Your task to perform on an android device: Open Amazon Image 0: 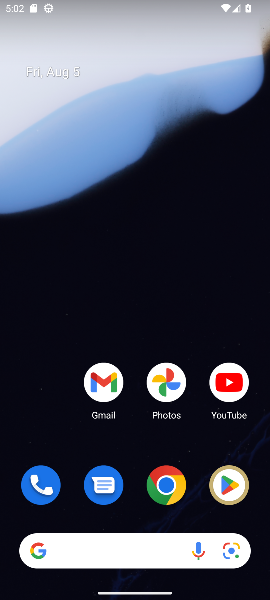
Step 0: click (174, 490)
Your task to perform on an android device: Open Amazon Image 1: 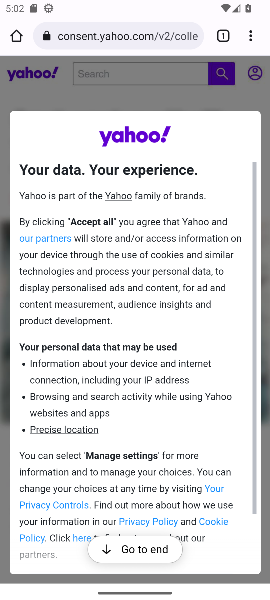
Step 1: click (167, 37)
Your task to perform on an android device: Open Amazon Image 2: 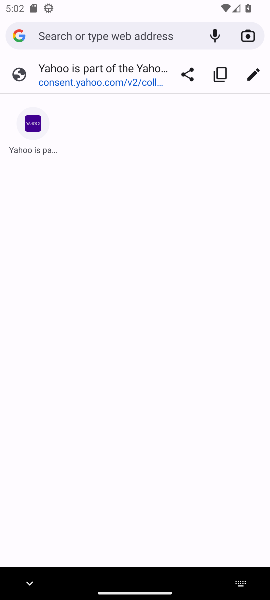
Step 2: type "amazon"
Your task to perform on an android device: Open Amazon Image 3: 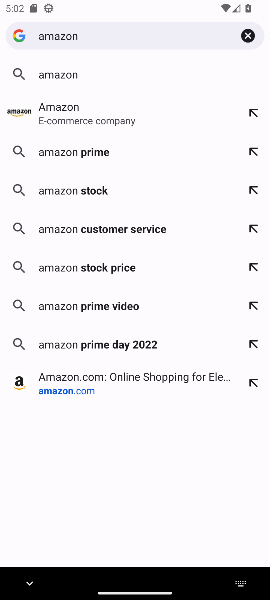
Step 3: click (66, 113)
Your task to perform on an android device: Open Amazon Image 4: 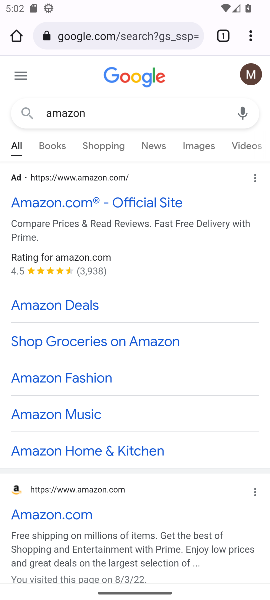
Step 4: click (65, 205)
Your task to perform on an android device: Open Amazon Image 5: 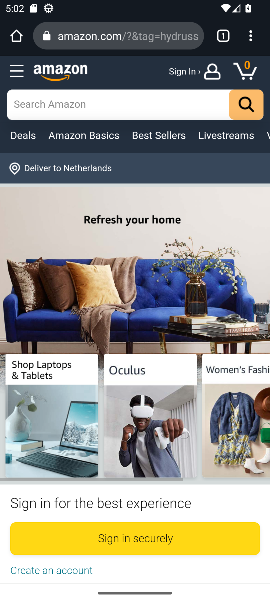
Step 5: task complete